Your task to perform on an android device: Open sound settings Image 0: 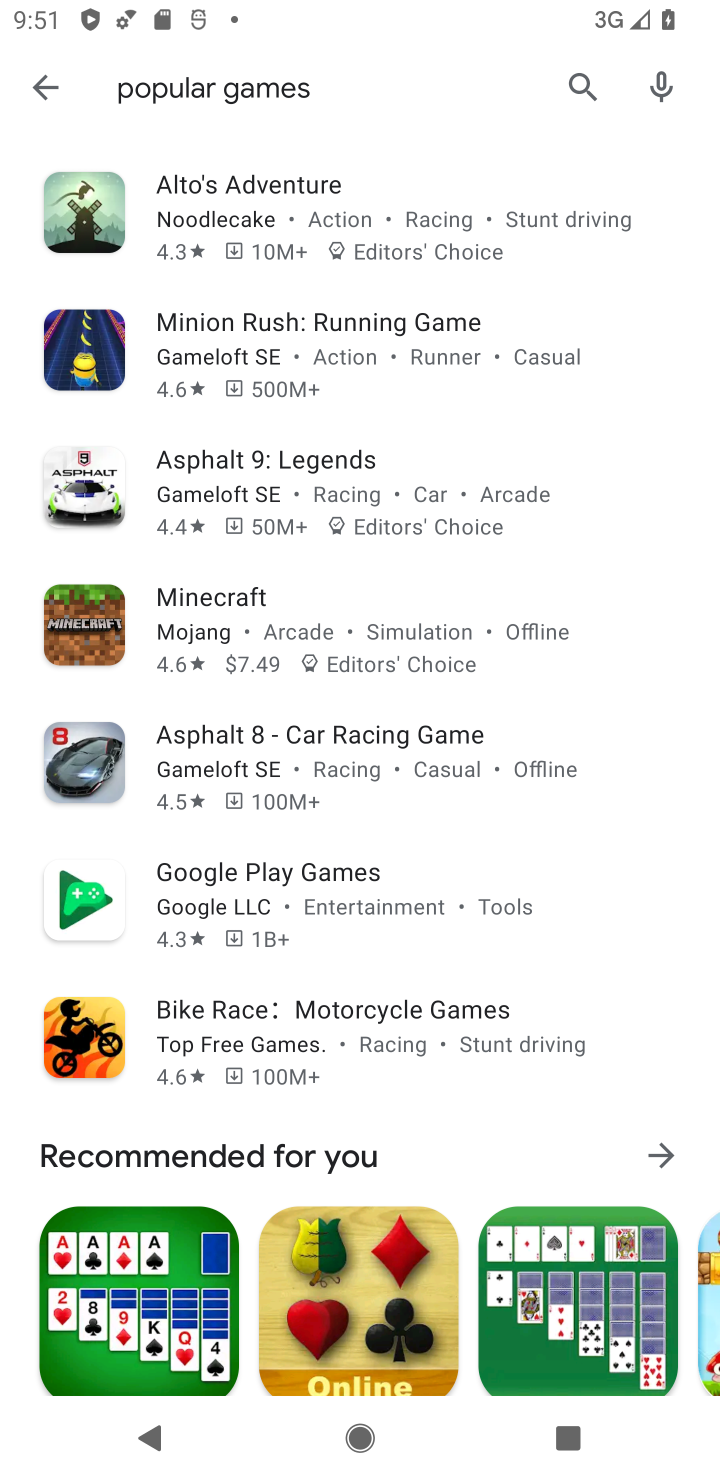
Step 0: press home button
Your task to perform on an android device: Open sound settings Image 1: 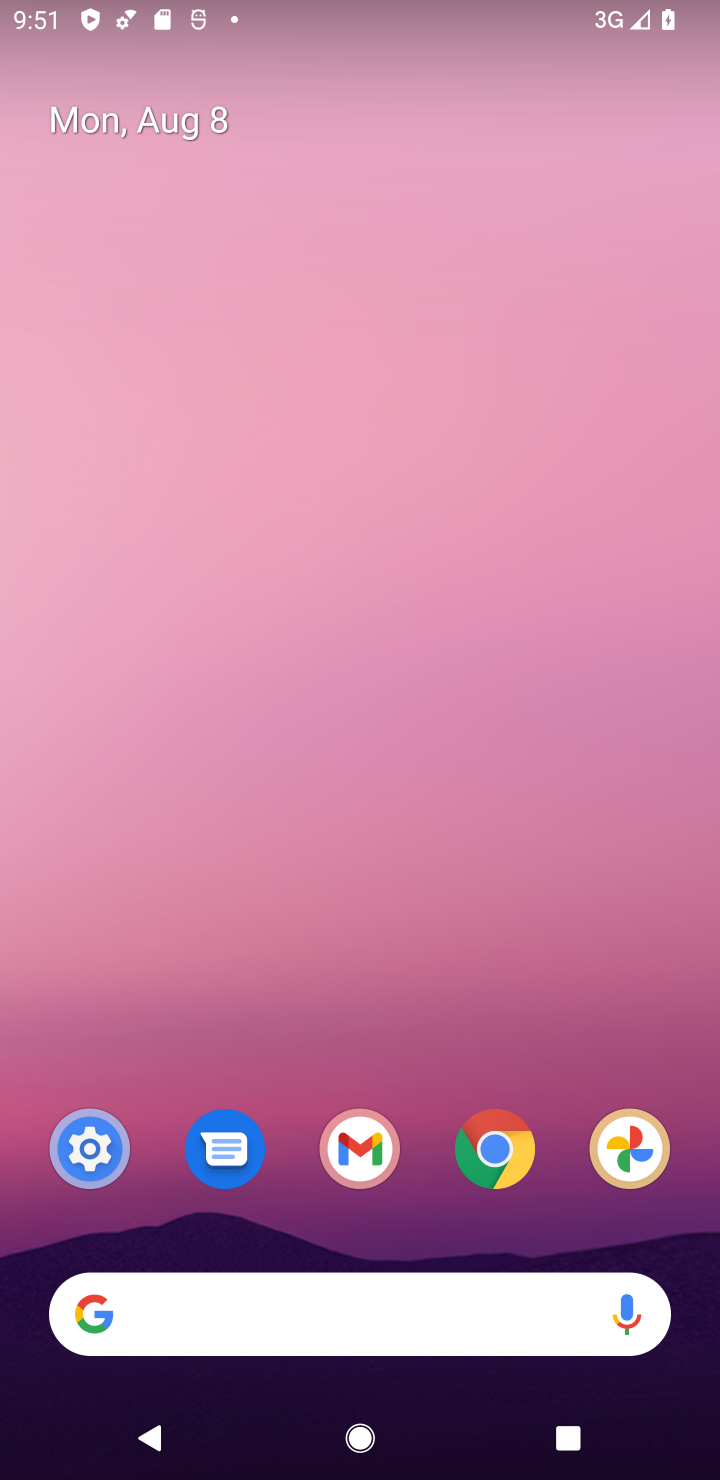
Step 1: click (93, 1138)
Your task to perform on an android device: Open sound settings Image 2: 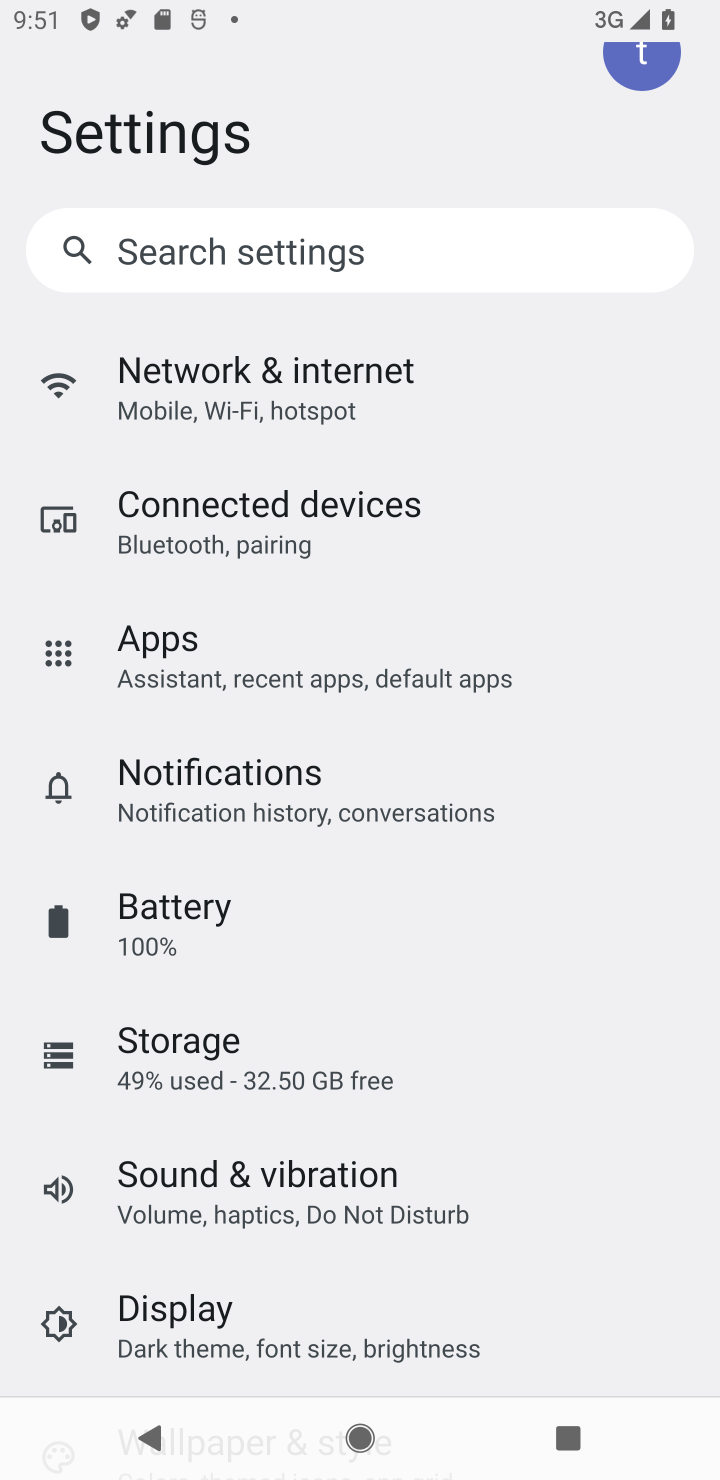
Step 2: drag from (237, 1130) to (237, 719)
Your task to perform on an android device: Open sound settings Image 3: 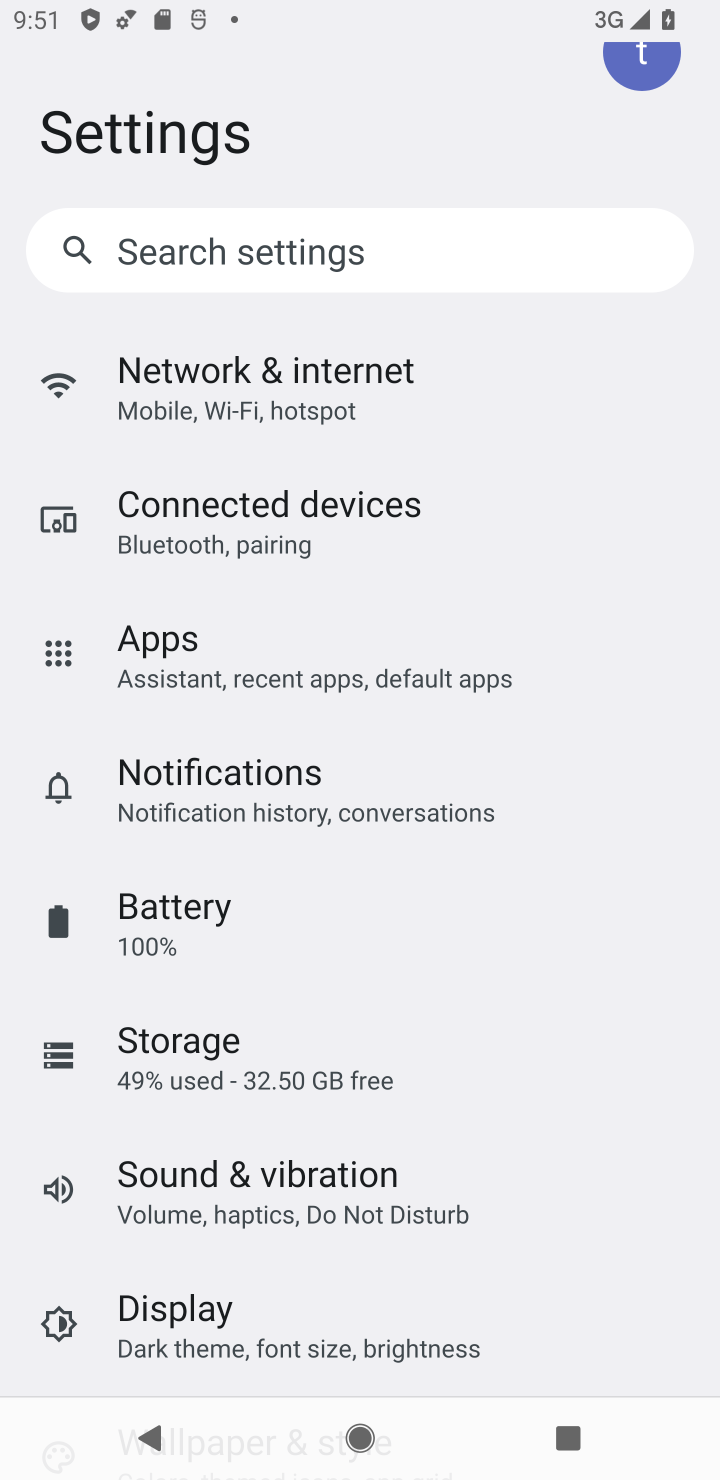
Step 3: click (244, 1205)
Your task to perform on an android device: Open sound settings Image 4: 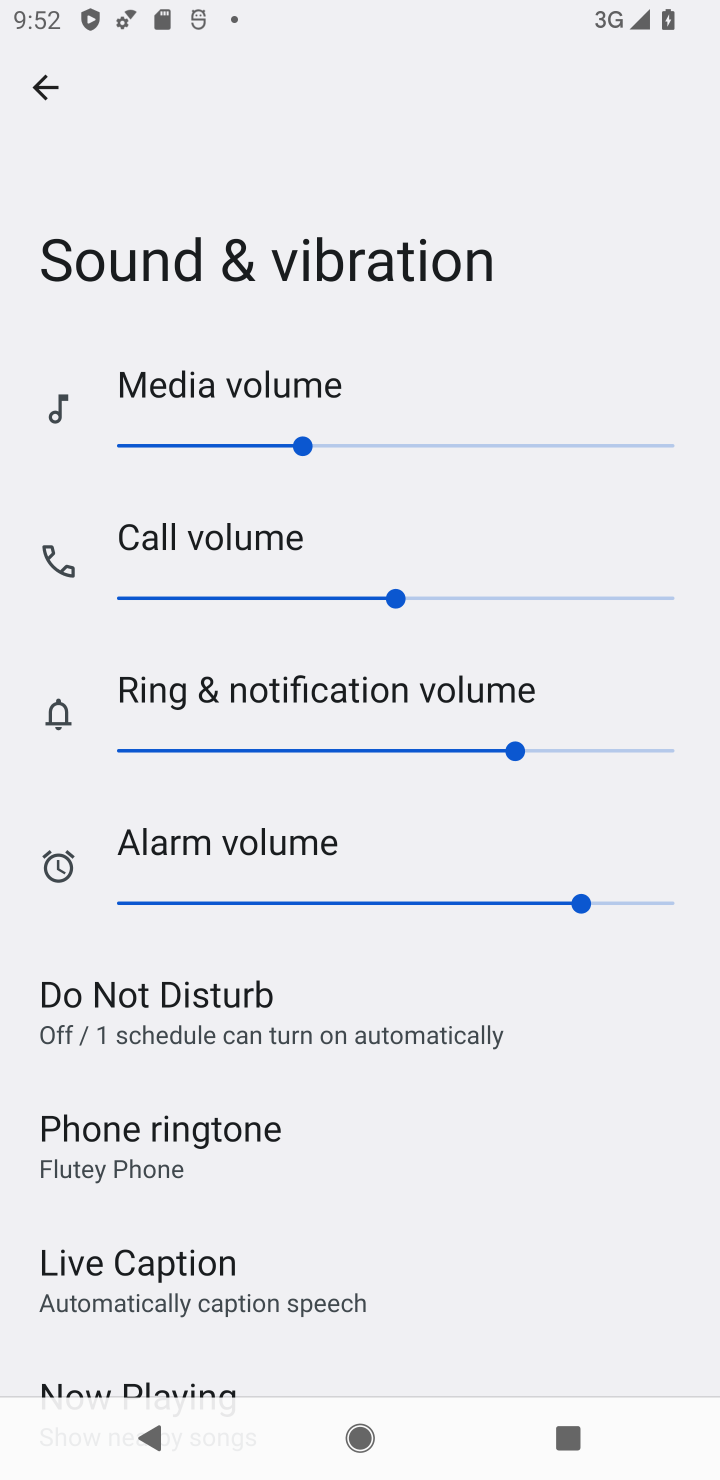
Step 4: task complete